Your task to perform on an android device: turn on showing notifications on the lock screen Image 0: 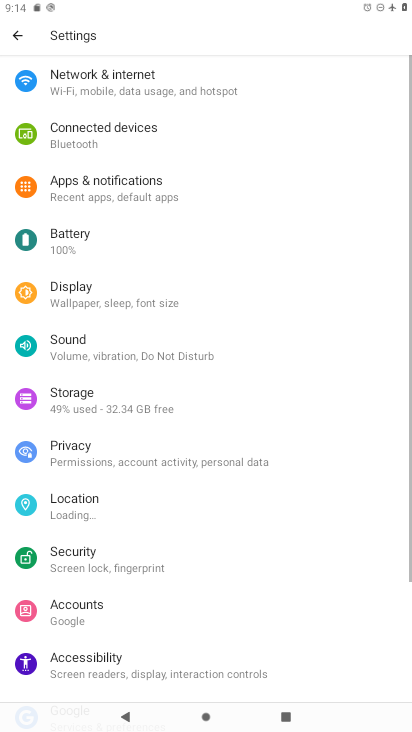
Step 0: press home button
Your task to perform on an android device: turn on showing notifications on the lock screen Image 1: 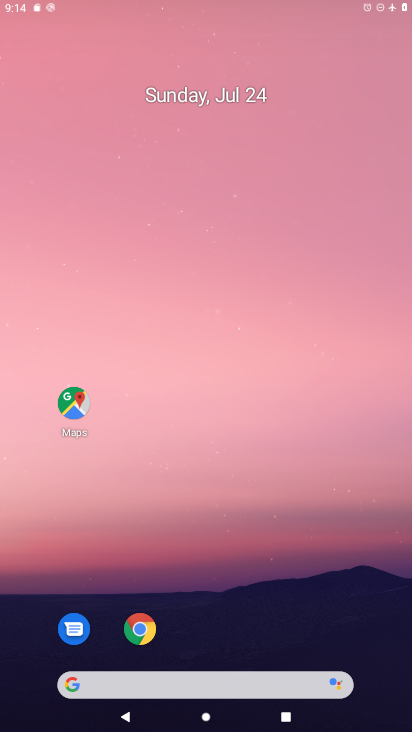
Step 1: drag from (377, 635) to (177, 25)
Your task to perform on an android device: turn on showing notifications on the lock screen Image 2: 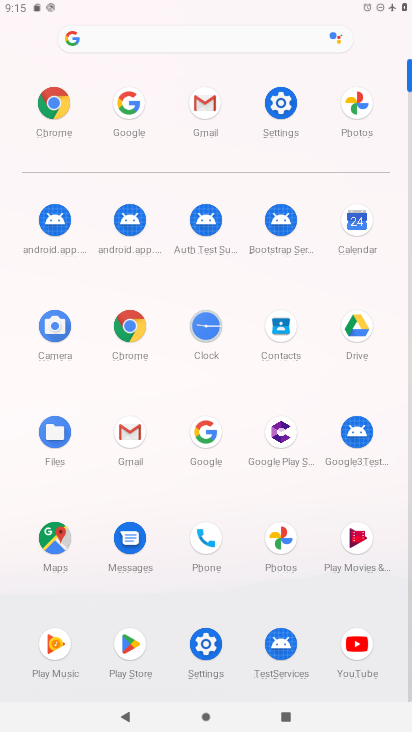
Step 2: click (212, 644)
Your task to perform on an android device: turn on showing notifications on the lock screen Image 3: 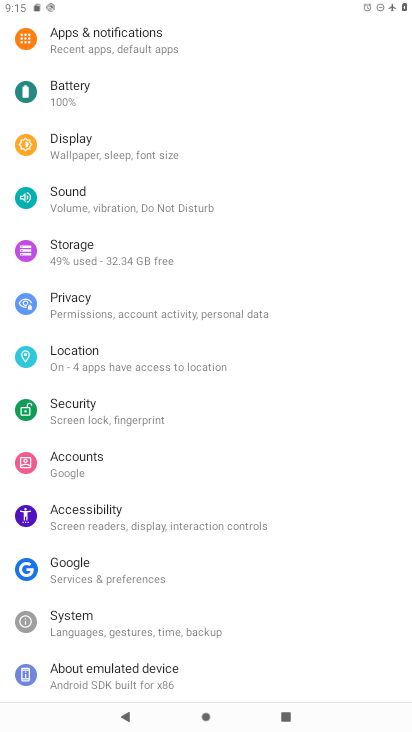
Step 3: click (132, 56)
Your task to perform on an android device: turn on showing notifications on the lock screen Image 4: 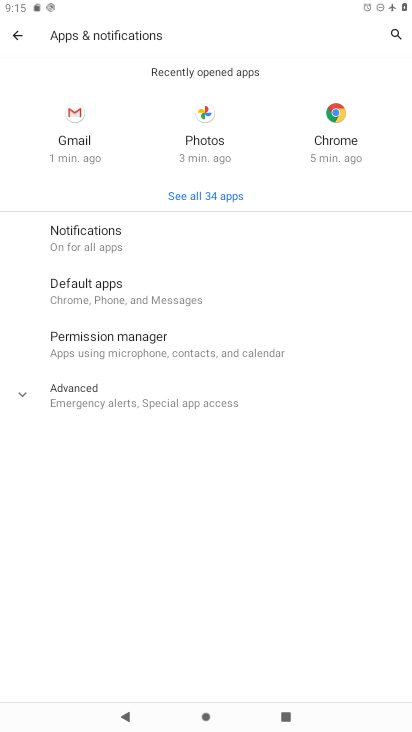
Step 4: click (107, 237)
Your task to perform on an android device: turn on showing notifications on the lock screen Image 5: 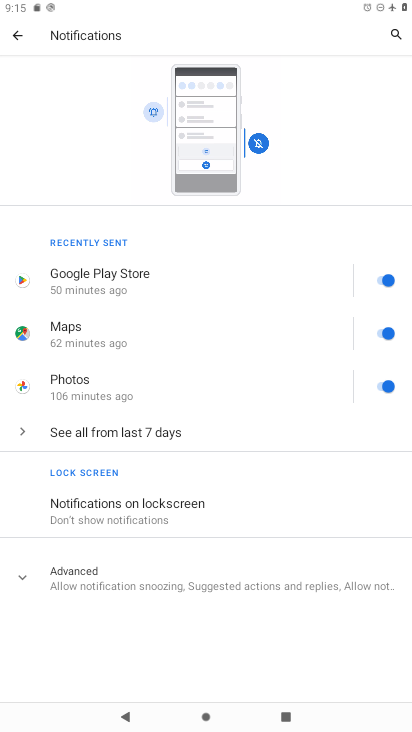
Step 5: click (125, 507)
Your task to perform on an android device: turn on showing notifications on the lock screen Image 6: 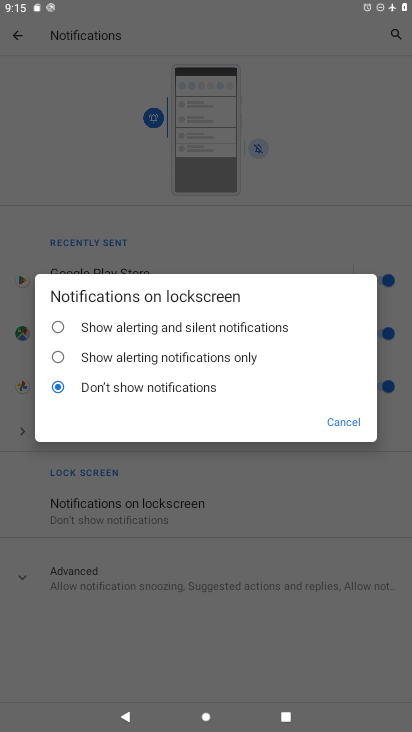
Step 6: click (75, 330)
Your task to perform on an android device: turn on showing notifications on the lock screen Image 7: 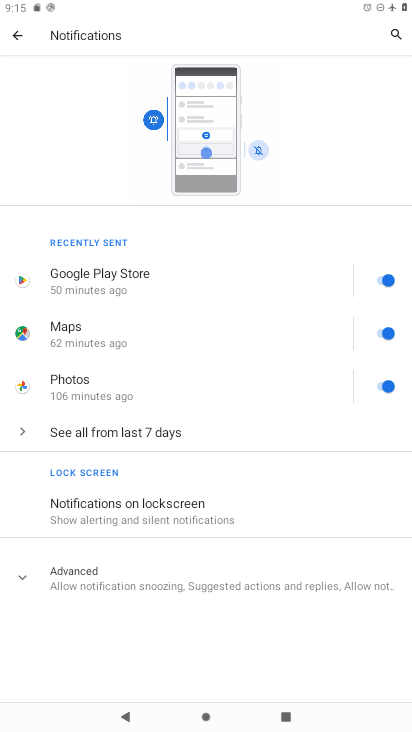
Step 7: task complete